Your task to perform on an android device: Open my contact list Image 0: 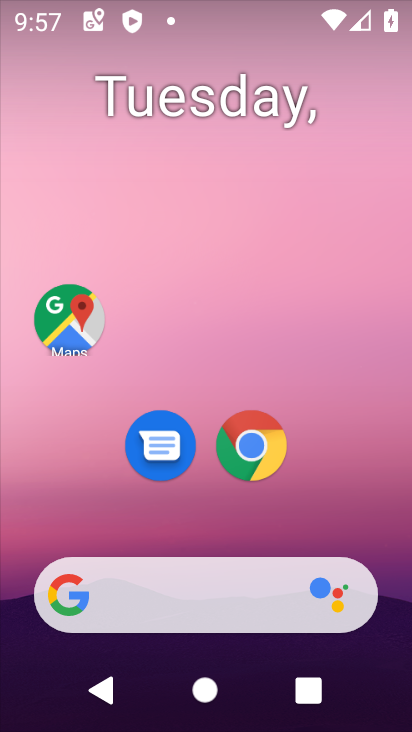
Step 0: click (79, 317)
Your task to perform on an android device: Open my contact list Image 1: 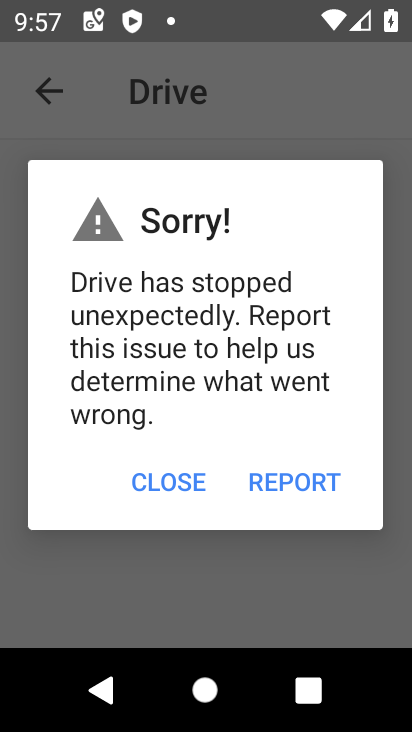
Step 1: press home button
Your task to perform on an android device: Open my contact list Image 2: 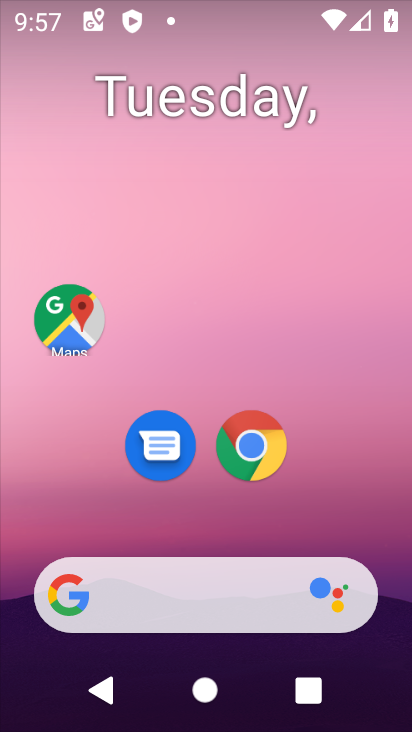
Step 2: drag from (396, 552) to (263, 125)
Your task to perform on an android device: Open my contact list Image 3: 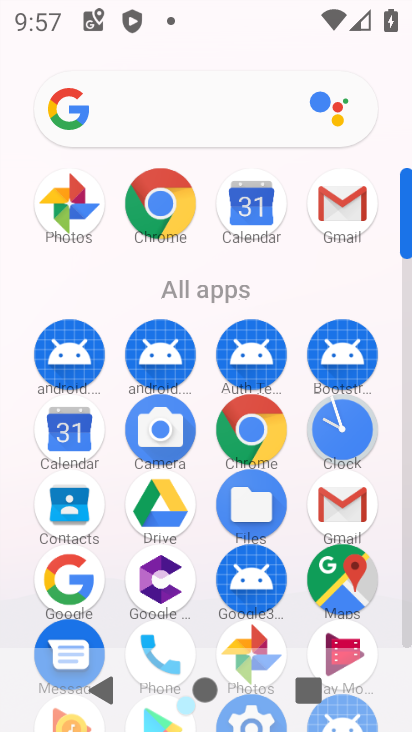
Step 3: click (78, 505)
Your task to perform on an android device: Open my contact list Image 4: 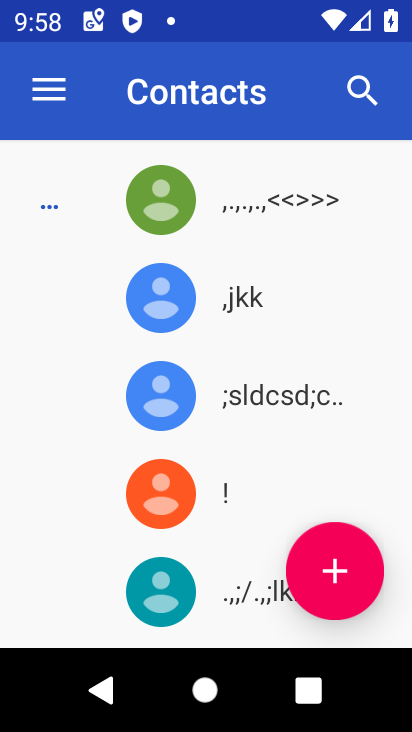
Step 4: task complete